Your task to perform on an android device: turn on javascript in the chrome app Image 0: 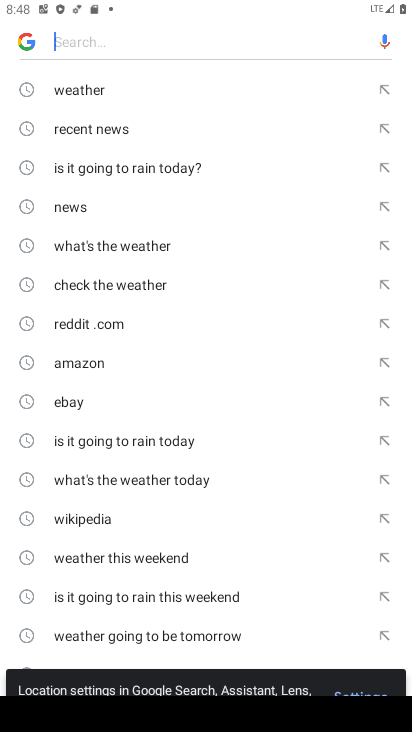
Step 0: press home button
Your task to perform on an android device: turn on javascript in the chrome app Image 1: 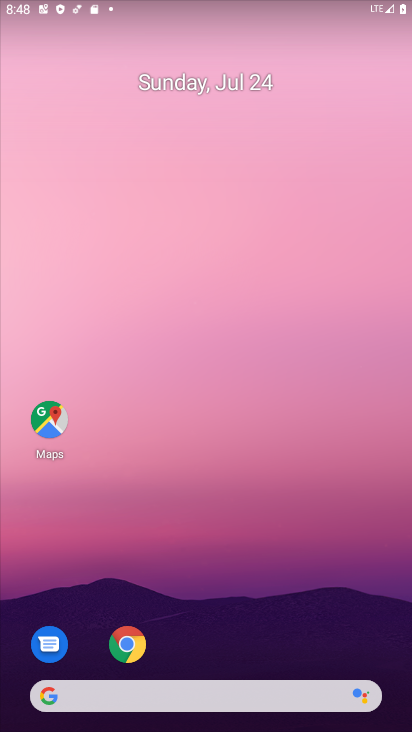
Step 1: click (126, 653)
Your task to perform on an android device: turn on javascript in the chrome app Image 2: 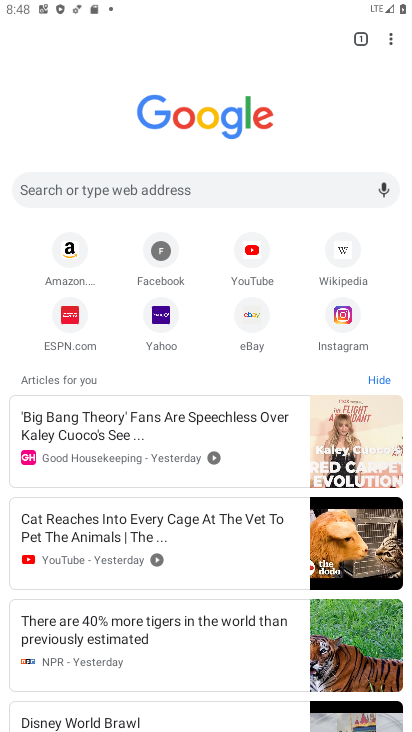
Step 2: click (391, 31)
Your task to perform on an android device: turn on javascript in the chrome app Image 3: 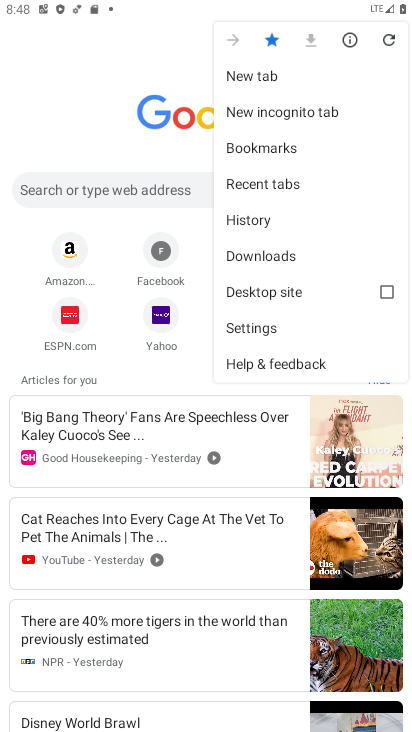
Step 3: click (250, 330)
Your task to perform on an android device: turn on javascript in the chrome app Image 4: 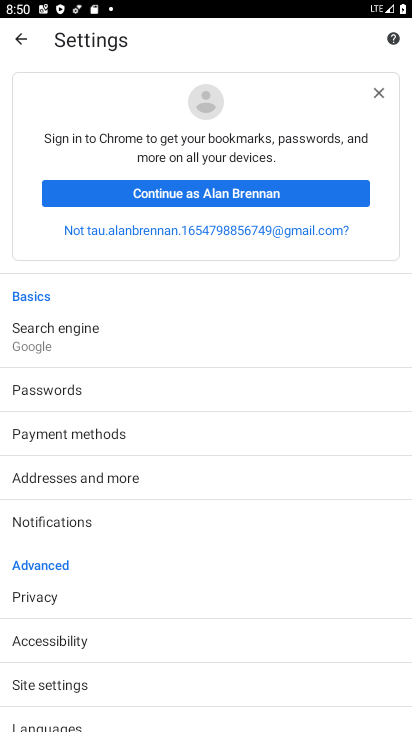
Step 4: click (49, 687)
Your task to perform on an android device: turn on javascript in the chrome app Image 5: 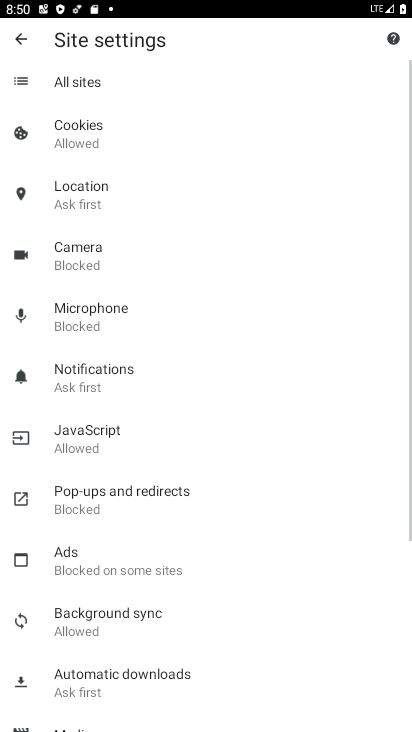
Step 5: click (98, 445)
Your task to perform on an android device: turn on javascript in the chrome app Image 6: 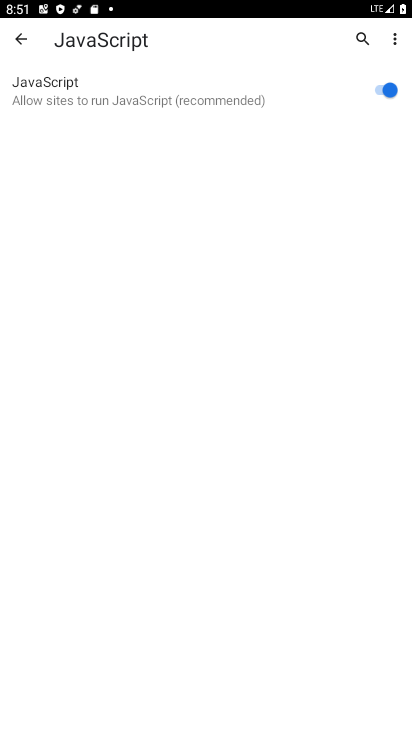
Step 6: task complete